Your task to perform on an android device: check google app version Image 0: 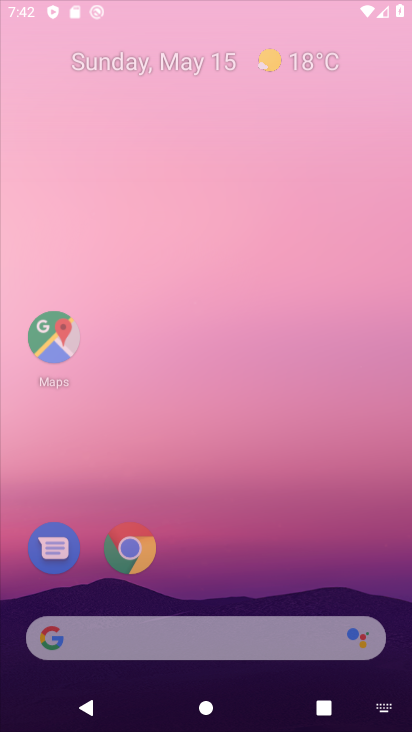
Step 0: drag from (146, 3) to (213, 19)
Your task to perform on an android device: check google app version Image 1: 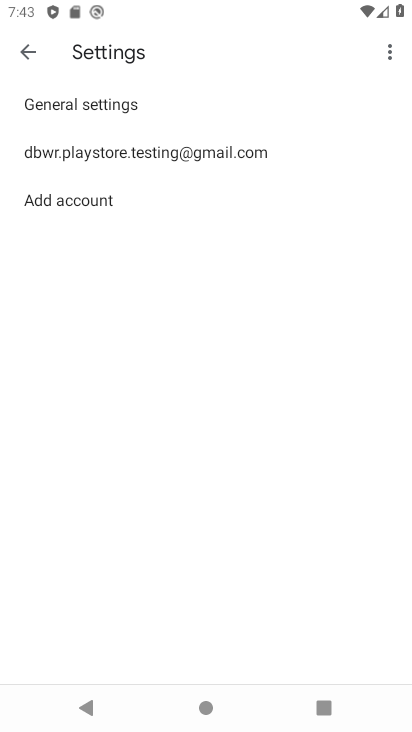
Step 1: click (26, 53)
Your task to perform on an android device: check google app version Image 2: 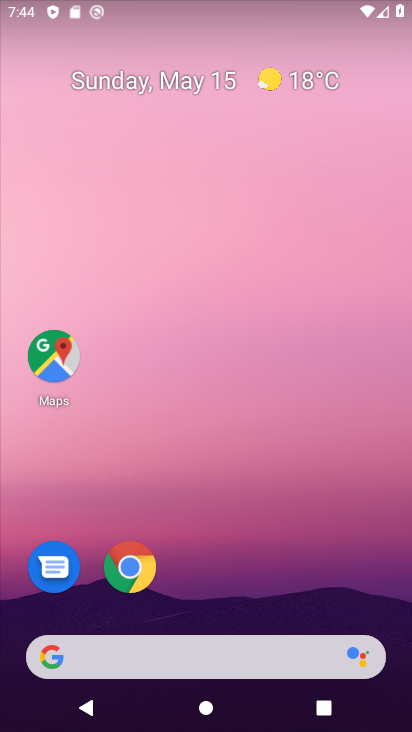
Step 2: drag from (274, 725) to (249, 28)
Your task to perform on an android device: check google app version Image 3: 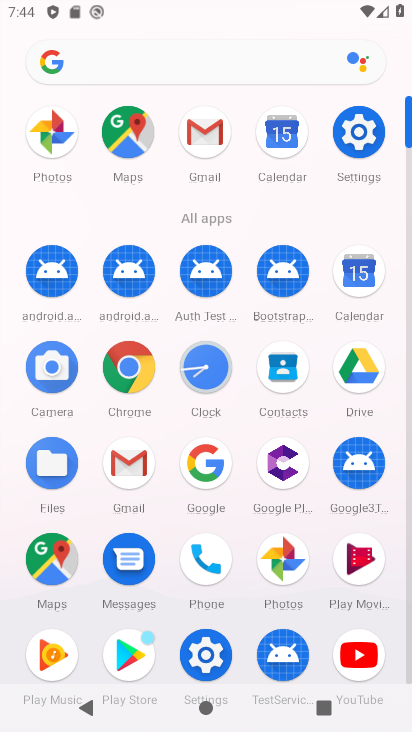
Step 3: click (210, 486)
Your task to perform on an android device: check google app version Image 4: 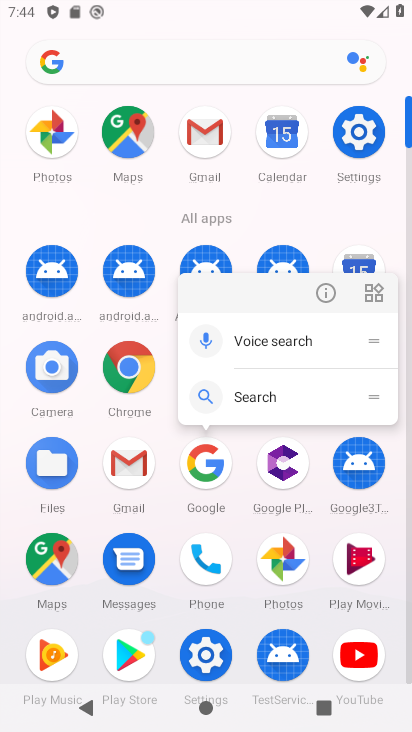
Step 4: click (320, 300)
Your task to perform on an android device: check google app version Image 5: 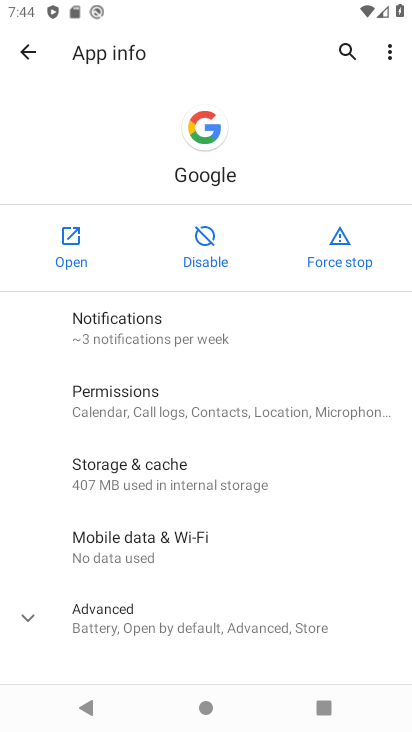
Step 5: drag from (247, 598) to (238, 13)
Your task to perform on an android device: check google app version Image 6: 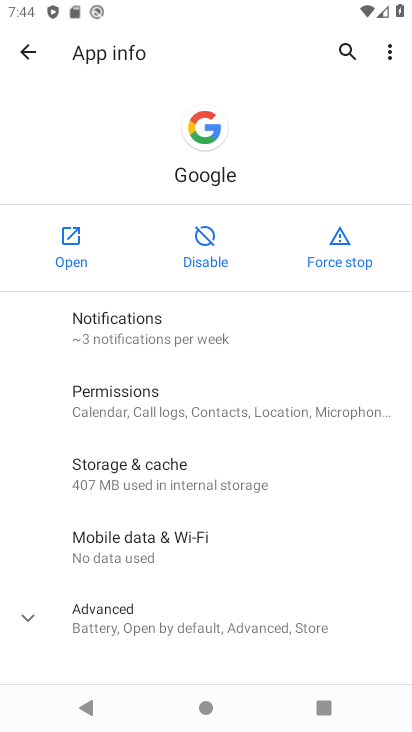
Step 6: click (219, 623)
Your task to perform on an android device: check google app version Image 7: 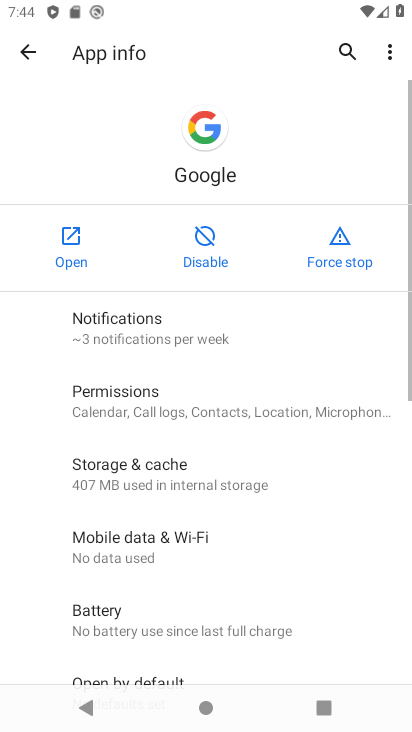
Step 7: task complete